Your task to perform on an android device: Turn off the flashlight Image 0: 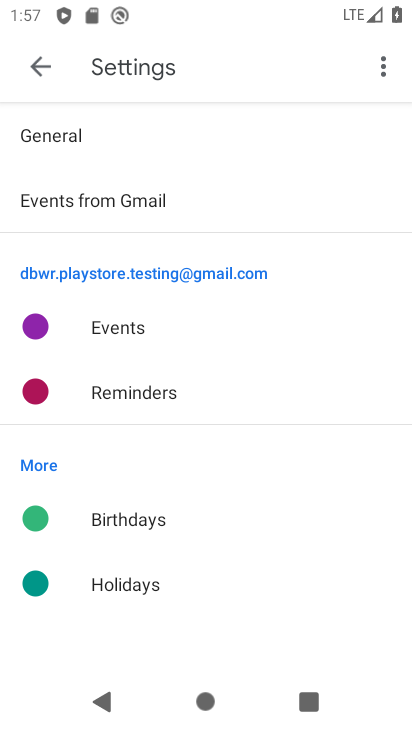
Step 0: press home button
Your task to perform on an android device: Turn off the flashlight Image 1: 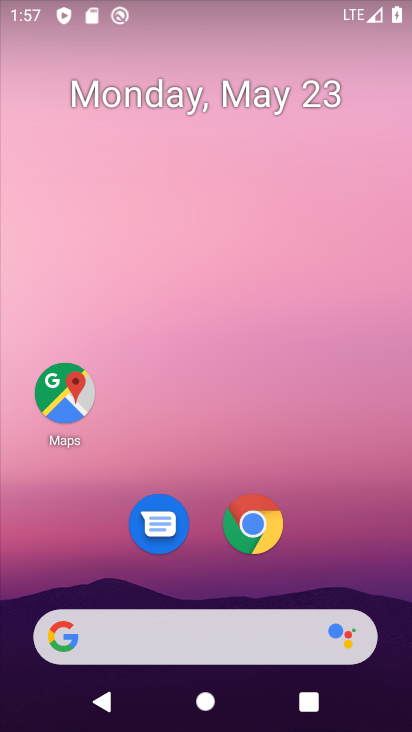
Step 1: drag from (250, 397) to (295, 21)
Your task to perform on an android device: Turn off the flashlight Image 2: 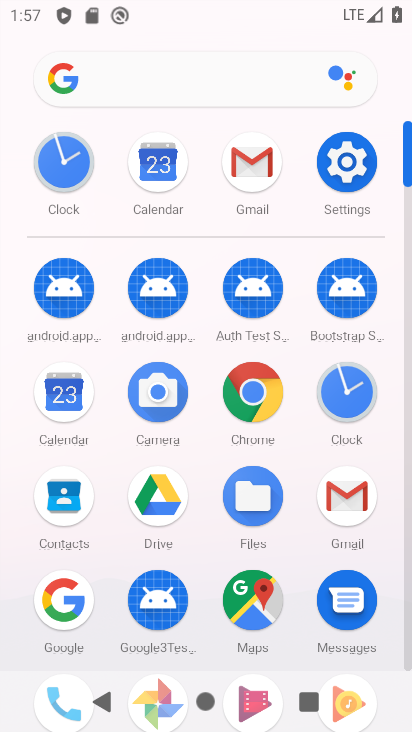
Step 2: click (330, 152)
Your task to perform on an android device: Turn off the flashlight Image 3: 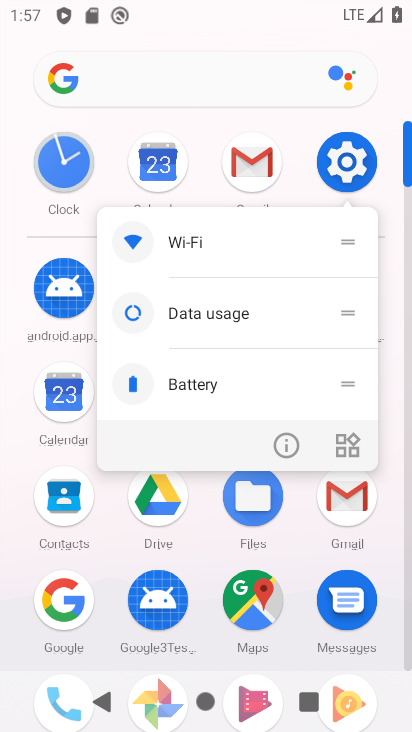
Step 3: click (346, 150)
Your task to perform on an android device: Turn off the flashlight Image 4: 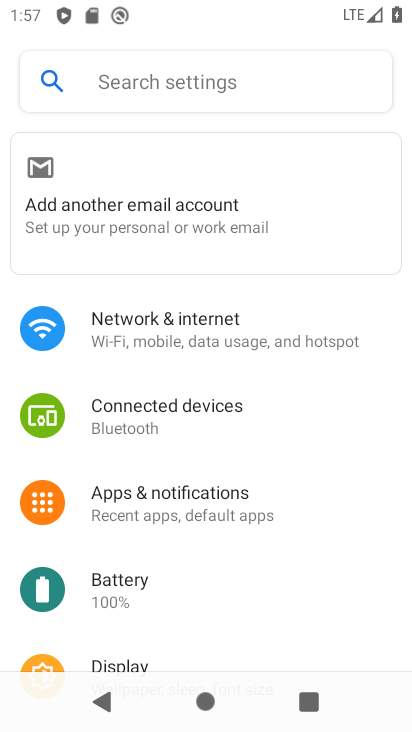
Step 4: click (256, 75)
Your task to perform on an android device: Turn off the flashlight Image 5: 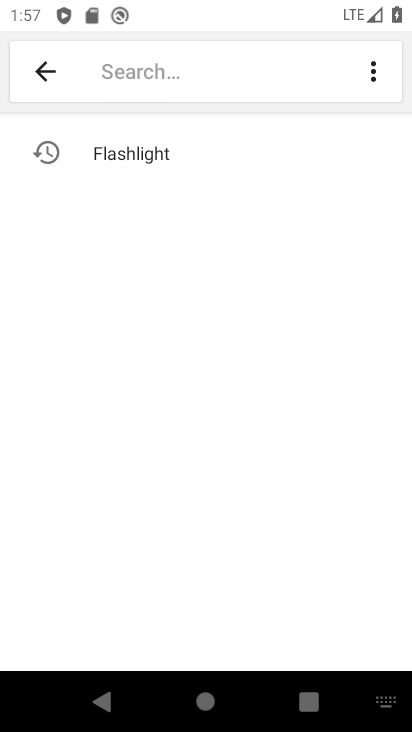
Step 5: click (152, 148)
Your task to perform on an android device: Turn off the flashlight Image 6: 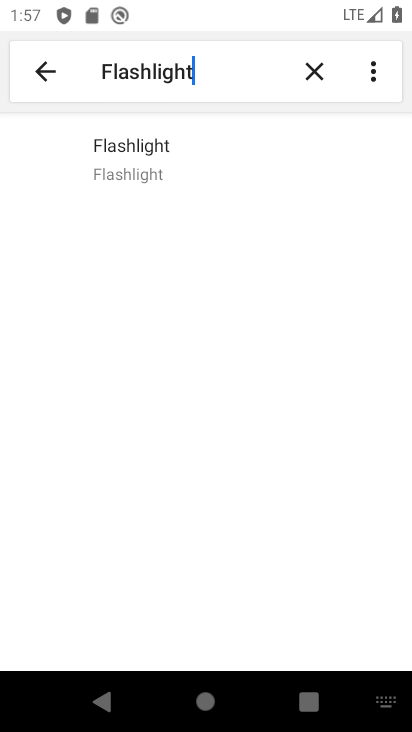
Step 6: click (141, 137)
Your task to perform on an android device: Turn off the flashlight Image 7: 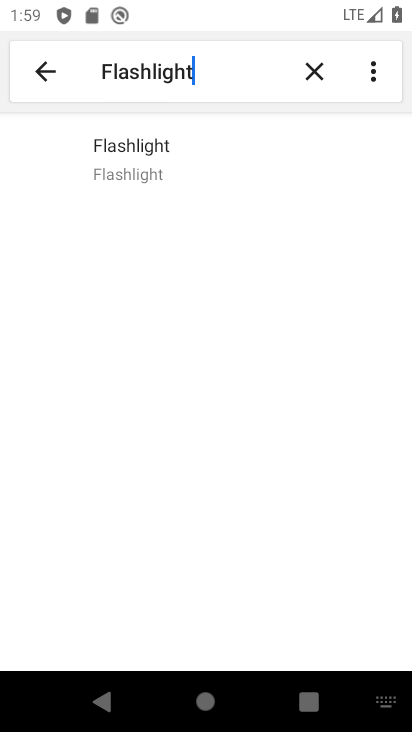
Step 7: task complete